Your task to perform on an android device: Open Android settings Image 0: 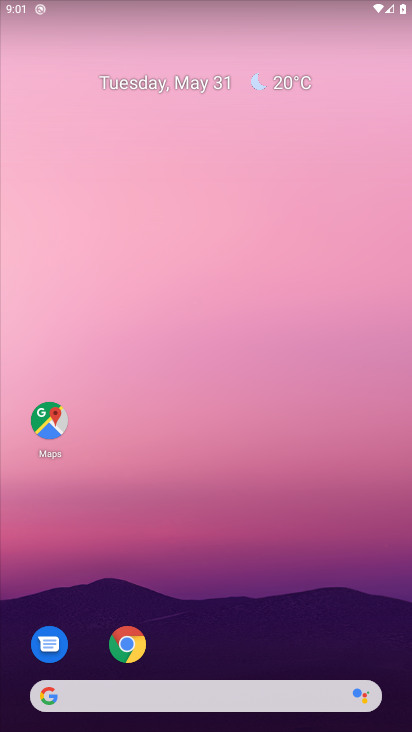
Step 0: press home button
Your task to perform on an android device: Open Android settings Image 1: 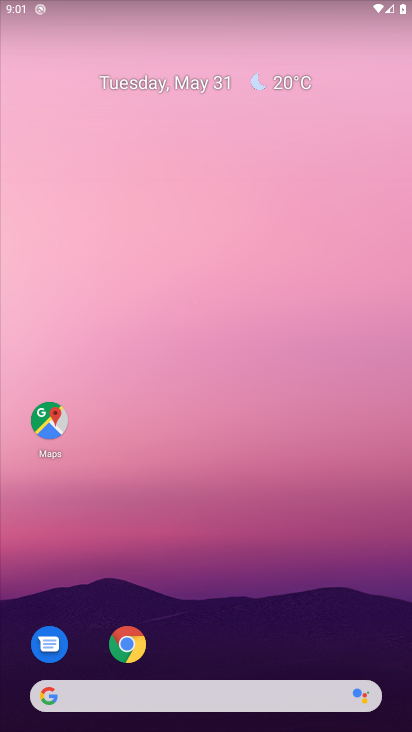
Step 1: drag from (235, 656) to (298, 59)
Your task to perform on an android device: Open Android settings Image 2: 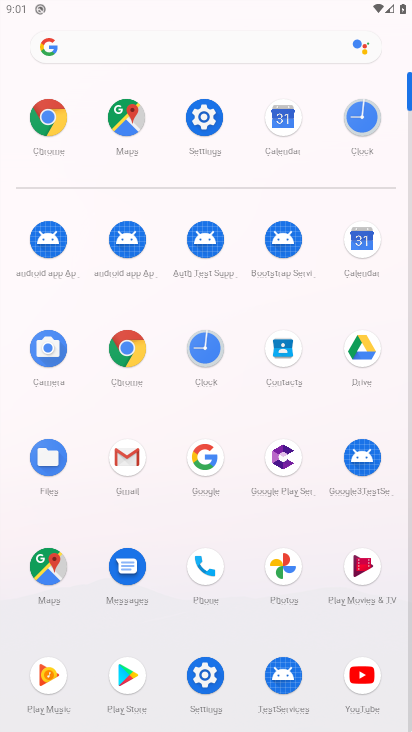
Step 2: click (203, 670)
Your task to perform on an android device: Open Android settings Image 3: 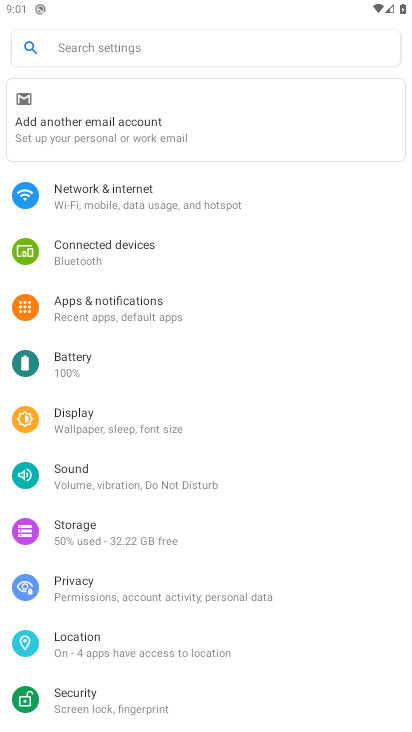
Step 3: drag from (175, 698) to (171, 124)
Your task to perform on an android device: Open Android settings Image 4: 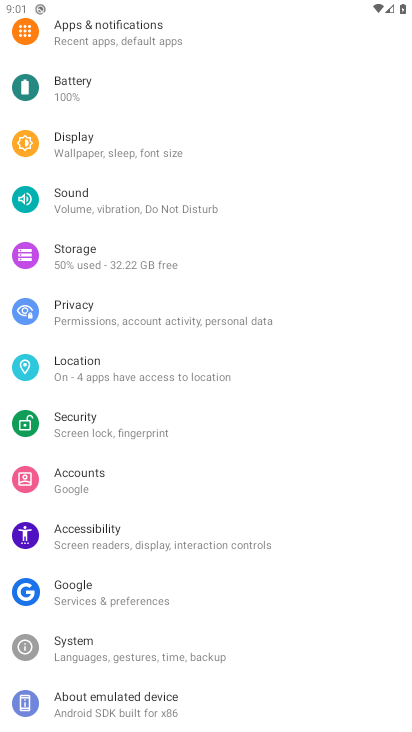
Step 4: click (158, 694)
Your task to perform on an android device: Open Android settings Image 5: 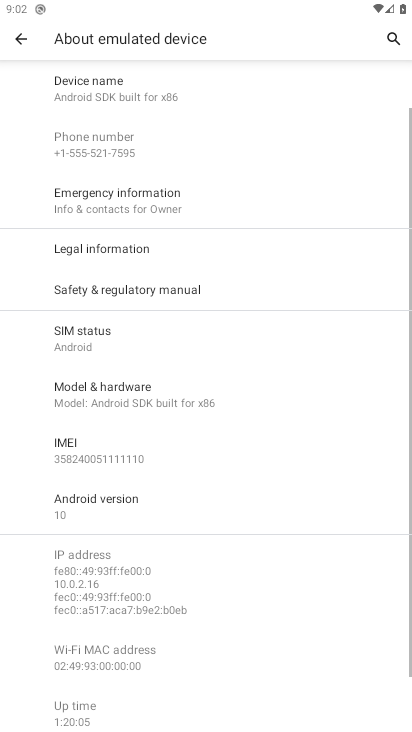
Step 5: click (100, 491)
Your task to perform on an android device: Open Android settings Image 6: 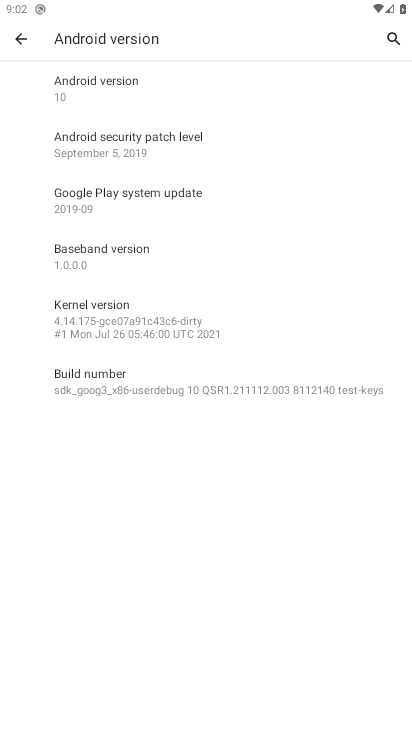
Step 6: task complete